Your task to perform on an android device: Play the last video I watched on Youtube Image 0: 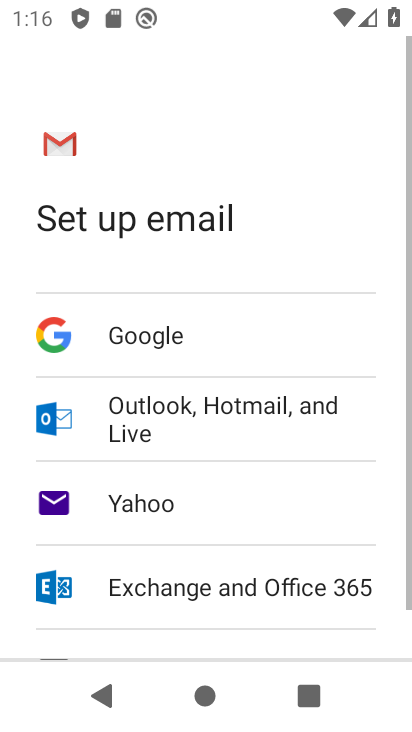
Step 0: press home button
Your task to perform on an android device: Play the last video I watched on Youtube Image 1: 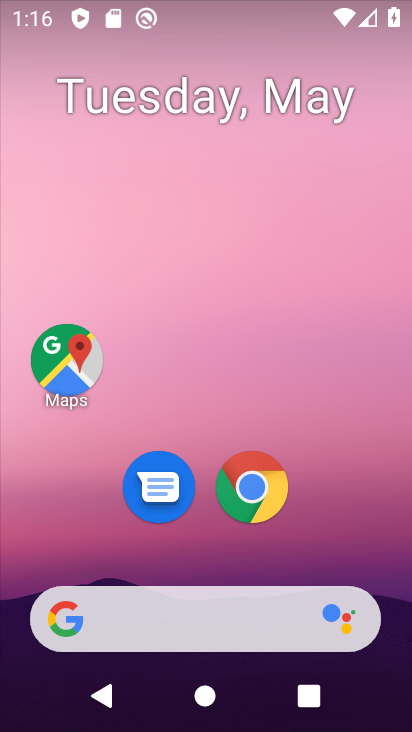
Step 1: drag from (210, 453) to (267, 37)
Your task to perform on an android device: Play the last video I watched on Youtube Image 2: 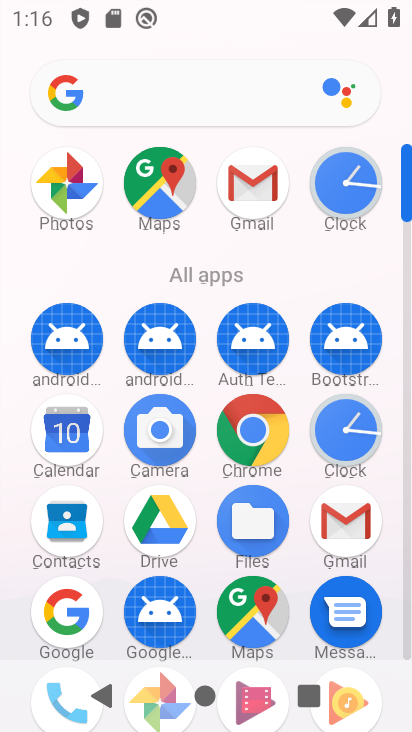
Step 2: drag from (214, 501) to (258, 127)
Your task to perform on an android device: Play the last video I watched on Youtube Image 3: 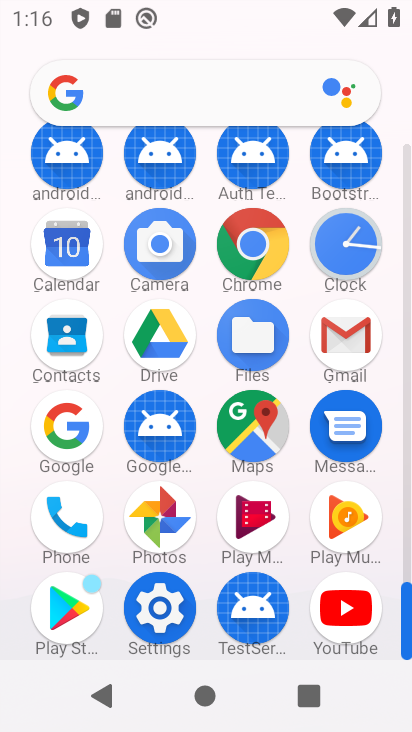
Step 3: click (346, 619)
Your task to perform on an android device: Play the last video I watched on Youtube Image 4: 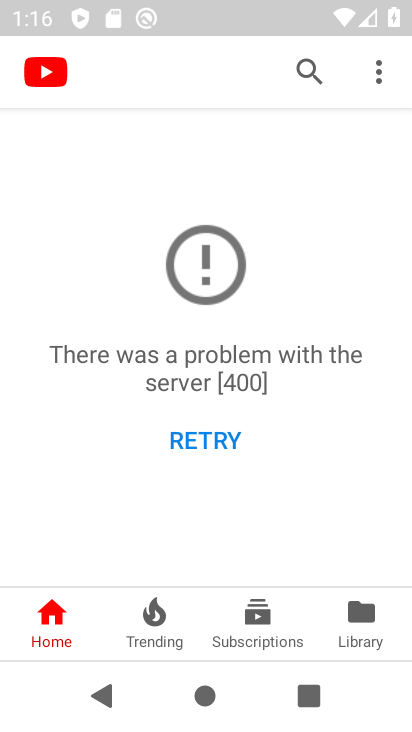
Step 4: drag from (332, 538) to (345, 611)
Your task to perform on an android device: Play the last video I watched on Youtube Image 5: 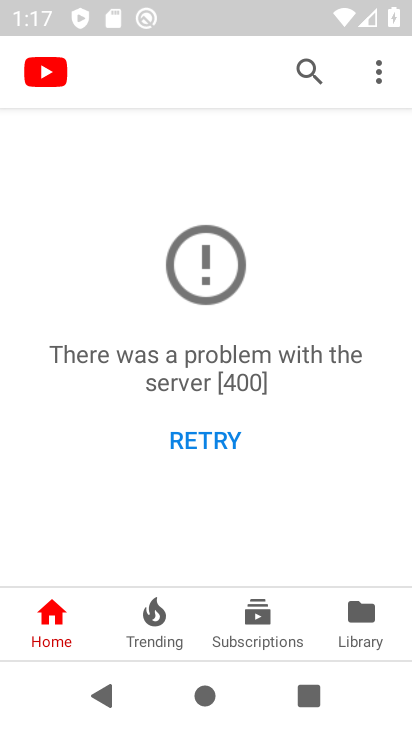
Step 5: click (355, 620)
Your task to perform on an android device: Play the last video I watched on Youtube Image 6: 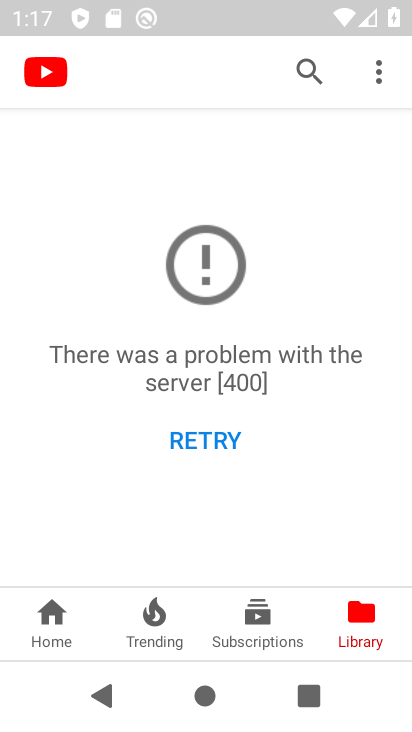
Step 6: click (210, 445)
Your task to perform on an android device: Play the last video I watched on Youtube Image 7: 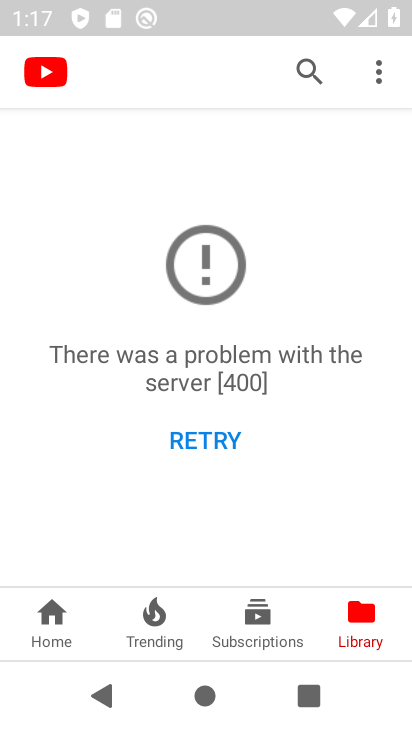
Step 7: task complete